Your task to perform on an android device: Go to notification settings Image 0: 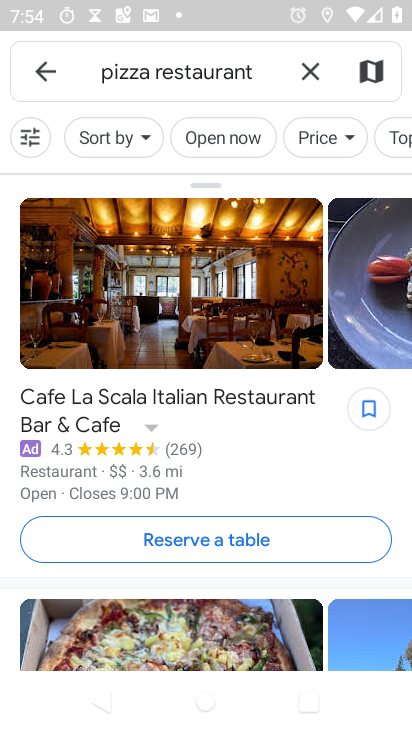
Step 0: press home button
Your task to perform on an android device: Go to notification settings Image 1: 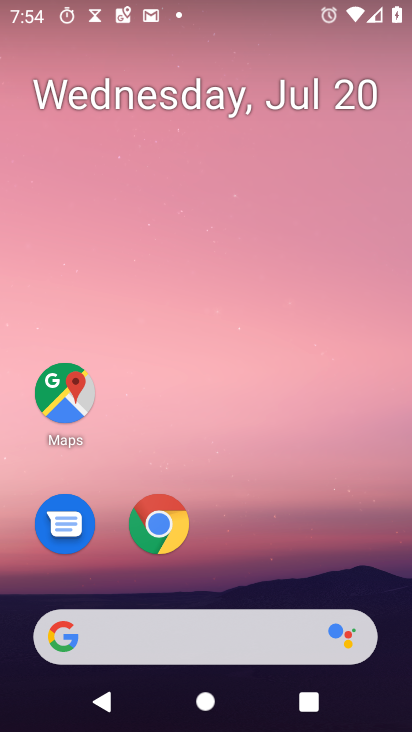
Step 1: drag from (222, 634) to (321, 165)
Your task to perform on an android device: Go to notification settings Image 2: 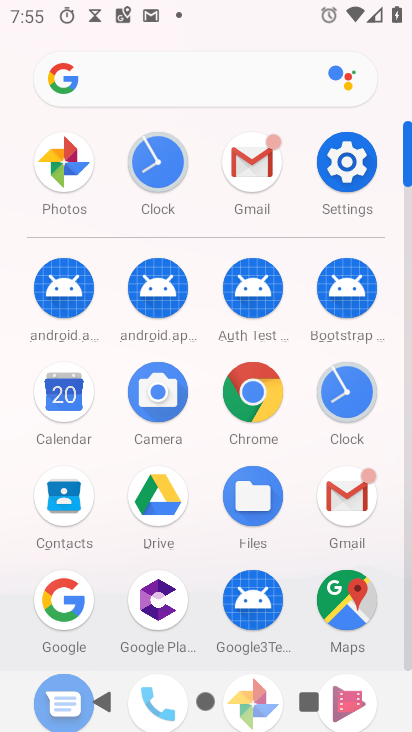
Step 2: click (363, 167)
Your task to perform on an android device: Go to notification settings Image 3: 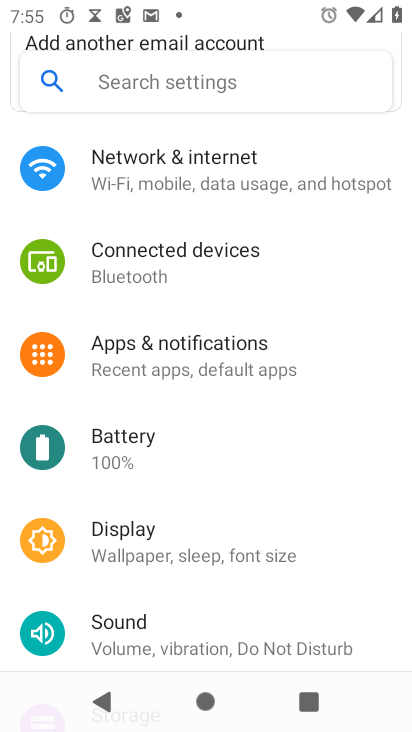
Step 3: click (229, 349)
Your task to perform on an android device: Go to notification settings Image 4: 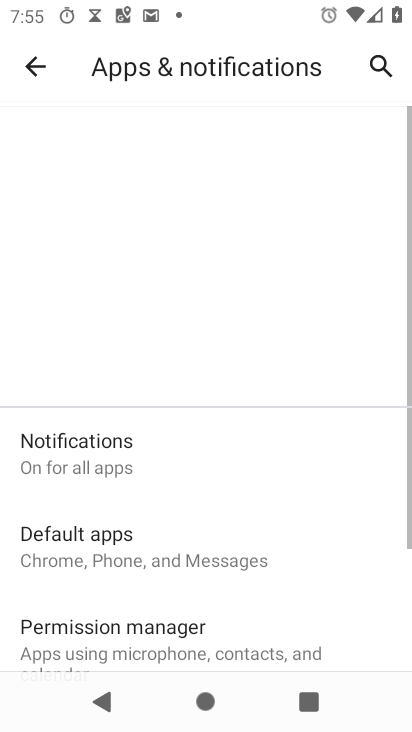
Step 4: click (103, 455)
Your task to perform on an android device: Go to notification settings Image 5: 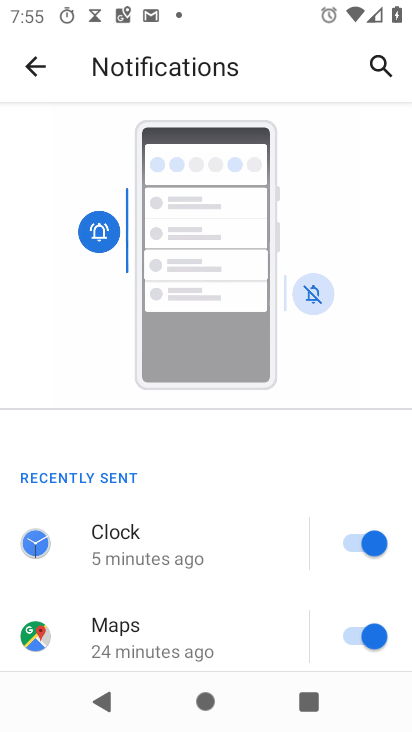
Step 5: task complete